Your task to perform on an android device: turn off wifi Image 0: 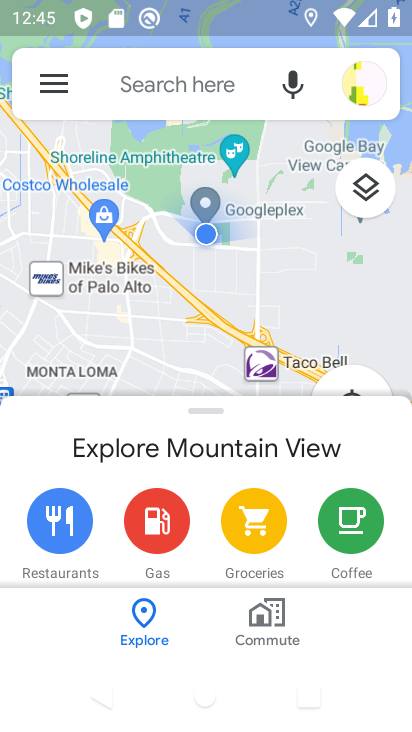
Step 0: drag from (199, 21) to (293, 514)
Your task to perform on an android device: turn off wifi Image 1: 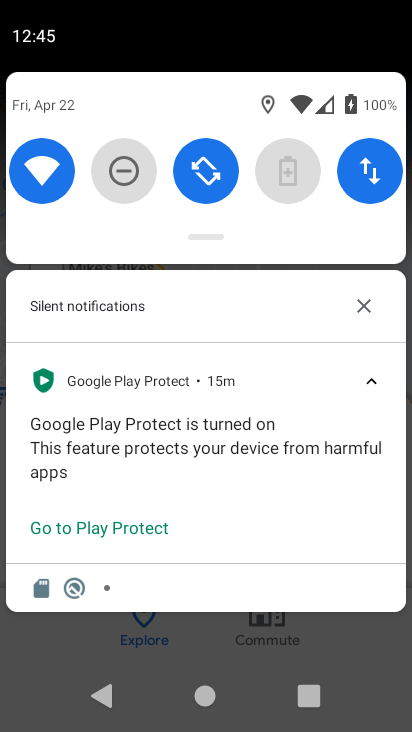
Step 1: click (51, 177)
Your task to perform on an android device: turn off wifi Image 2: 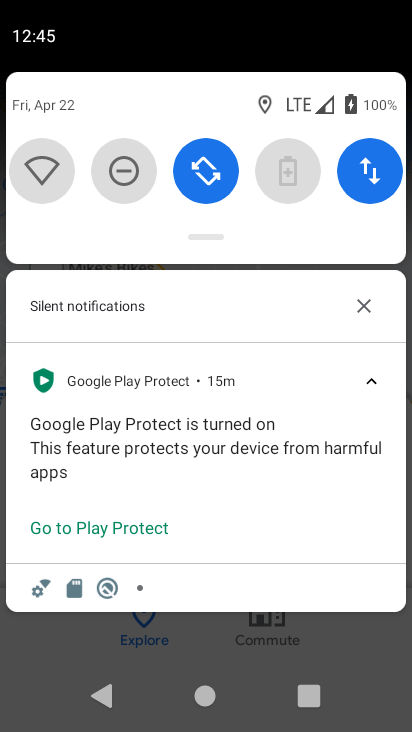
Step 2: task complete